Your task to perform on an android device: Show me popular videos on Youtube Image 0: 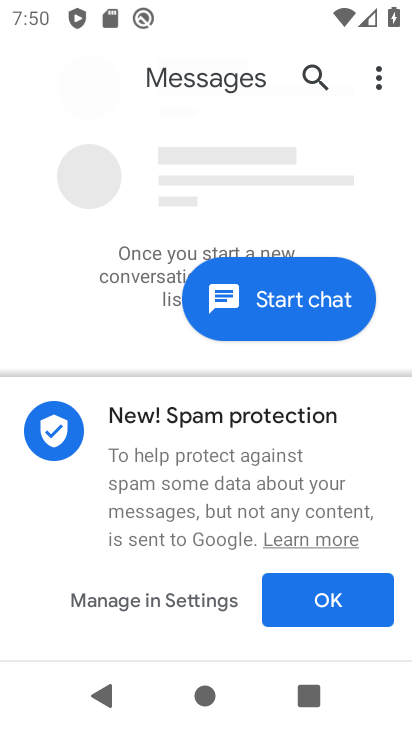
Step 0: press home button
Your task to perform on an android device: Show me popular videos on Youtube Image 1: 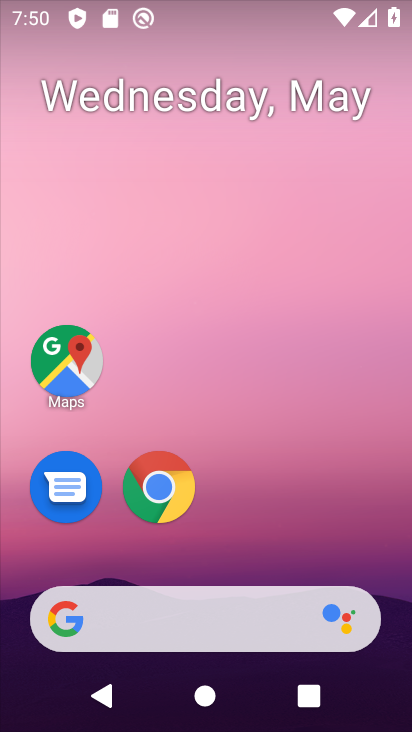
Step 1: drag from (263, 504) to (247, 52)
Your task to perform on an android device: Show me popular videos on Youtube Image 2: 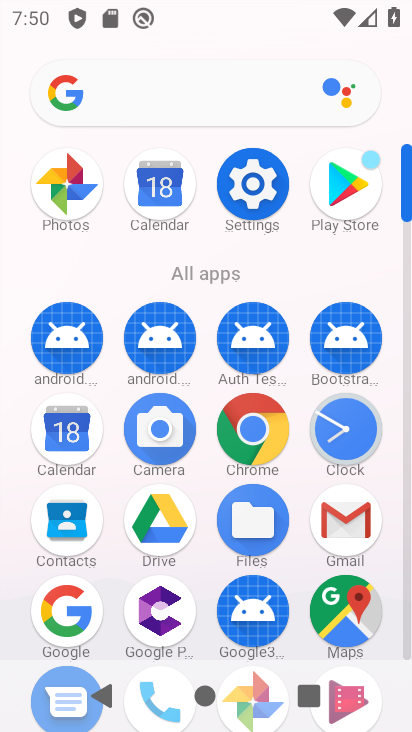
Step 2: drag from (206, 313) to (221, 64)
Your task to perform on an android device: Show me popular videos on Youtube Image 3: 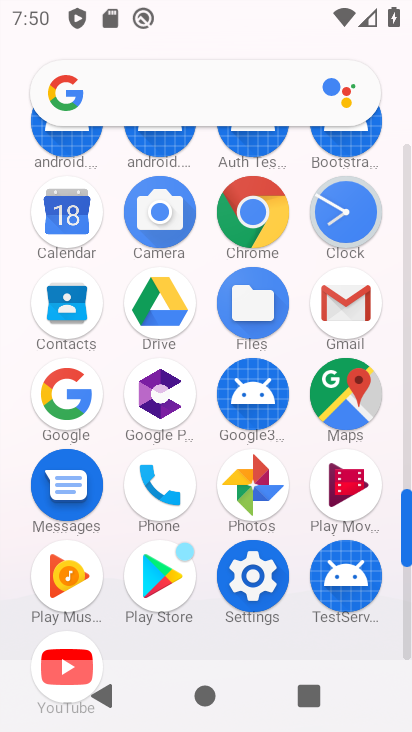
Step 3: click (71, 649)
Your task to perform on an android device: Show me popular videos on Youtube Image 4: 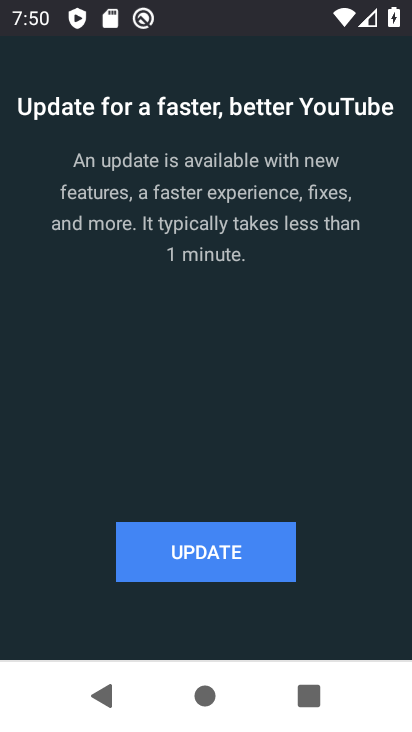
Step 4: click (278, 552)
Your task to perform on an android device: Show me popular videos on Youtube Image 5: 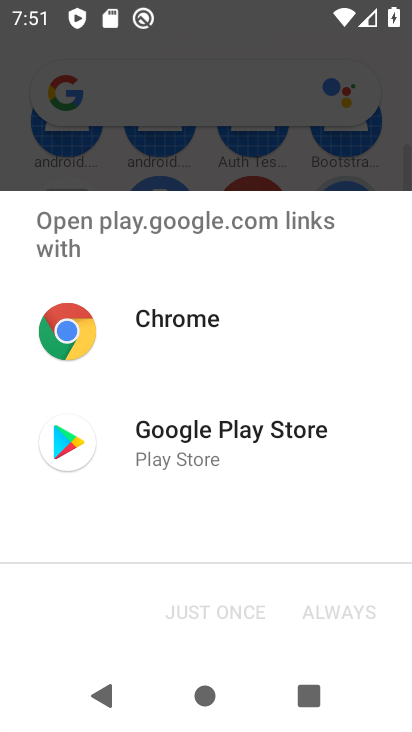
Step 5: click (133, 435)
Your task to perform on an android device: Show me popular videos on Youtube Image 6: 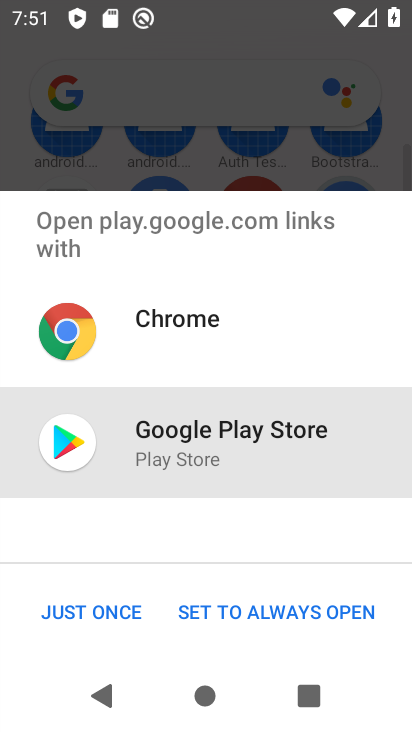
Step 6: click (110, 602)
Your task to perform on an android device: Show me popular videos on Youtube Image 7: 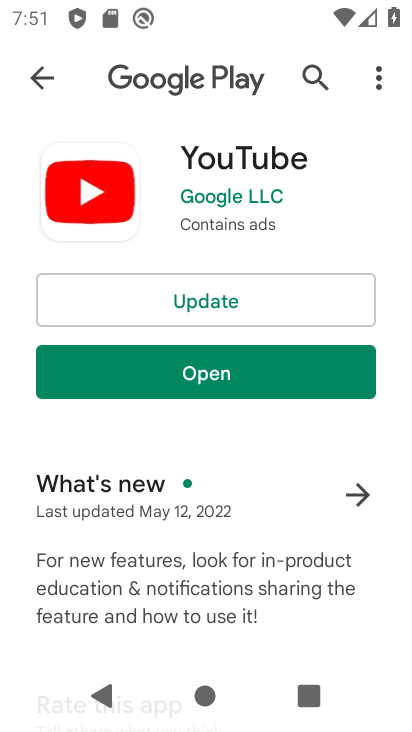
Step 7: click (275, 288)
Your task to perform on an android device: Show me popular videos on Youtube Image 8: 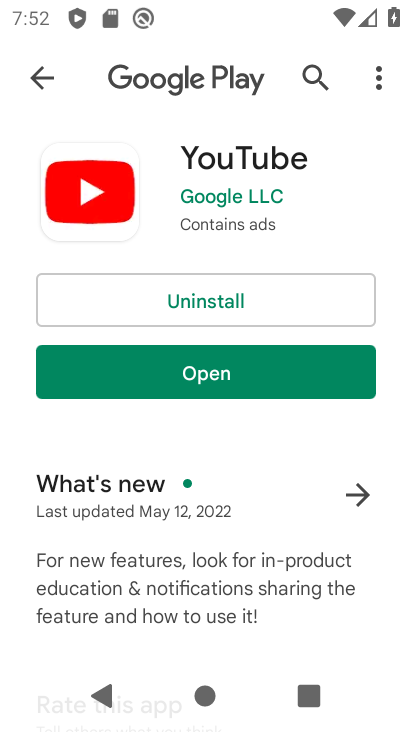
Step 8: click (262, 379)
Your task to perform on an android device: Show me popular videos on Youtube Image 9: 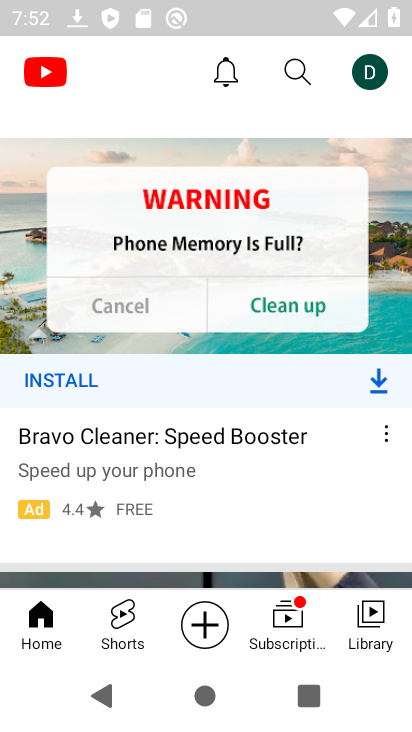
Step 9: click (176, 304)
Your task to perform on an android device: Show me popular videos on Youtube Image 10: 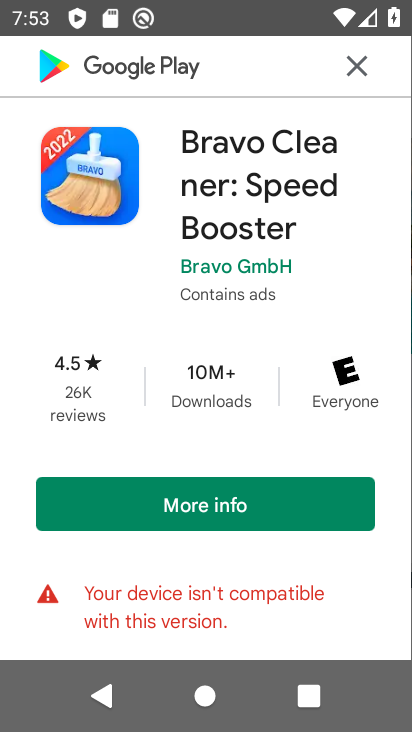
Step 10: click (353, 62)
Your task to perform on an android device: Show me popular videos on Youtube Image 11: 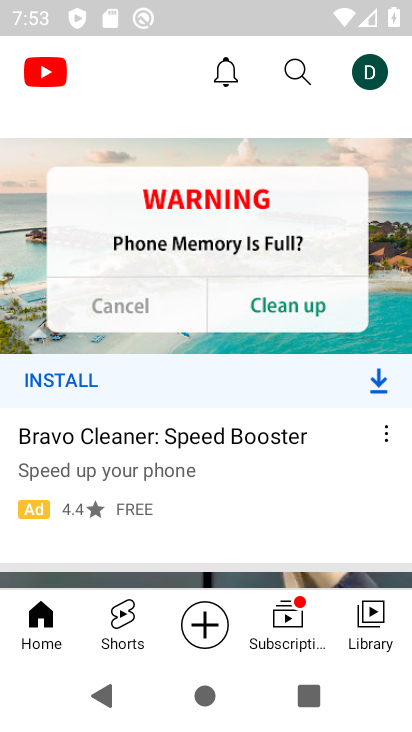
Step 11: click (263, 299)
Your task to perform on an android device: Show me popular videos on Youtube Image 12: 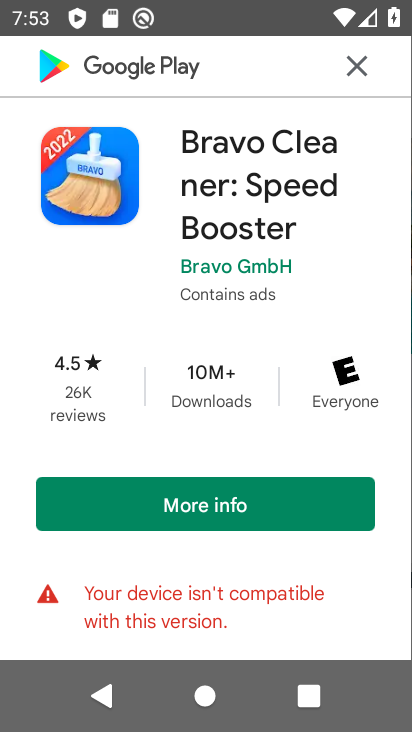
Step 12: click (360, 59)
Your task to perform on an android device: Show me popular videos on Youtube Image 13: 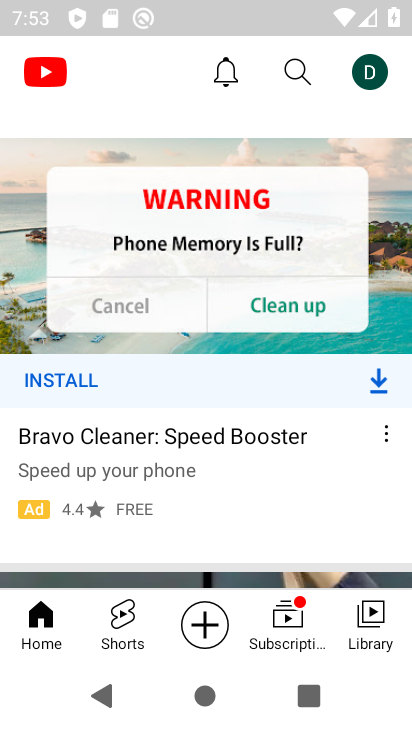
Step 13: click (292, 58)
Your task to perform on an android device: Show me popular videos on Youtube Image 14: 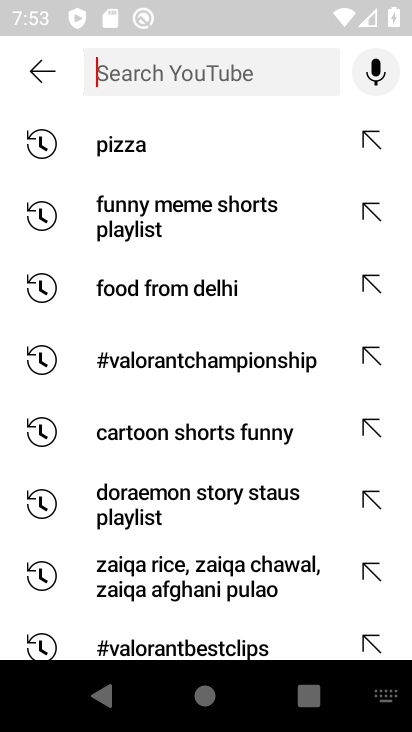
Step 14: type "popular videos"
Your task to perform on an android device: Show me popular videos on Youtube Image 15: 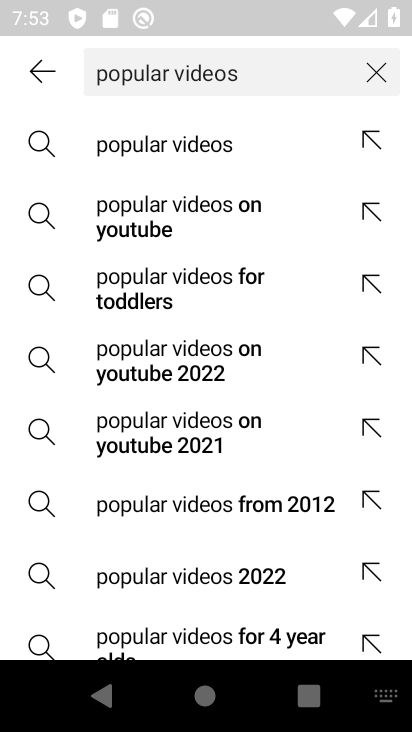
Step 15: click (177, 215)
Your task to perform on an android device: Show me popular videos on Youtube Image 16: 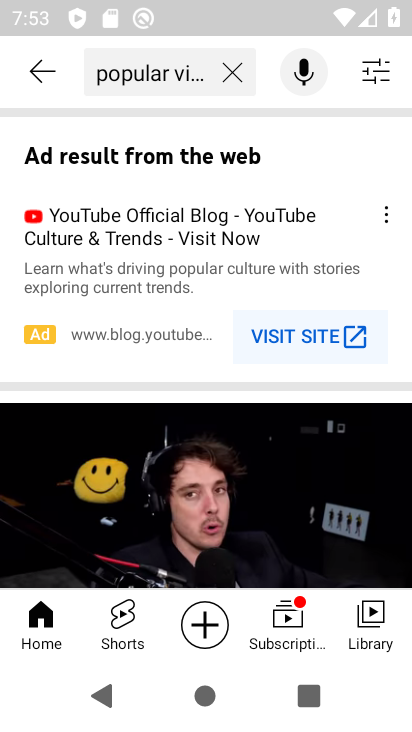
Step 16: task complete